Your task to perform on an android device: Open my contact list Image 0: 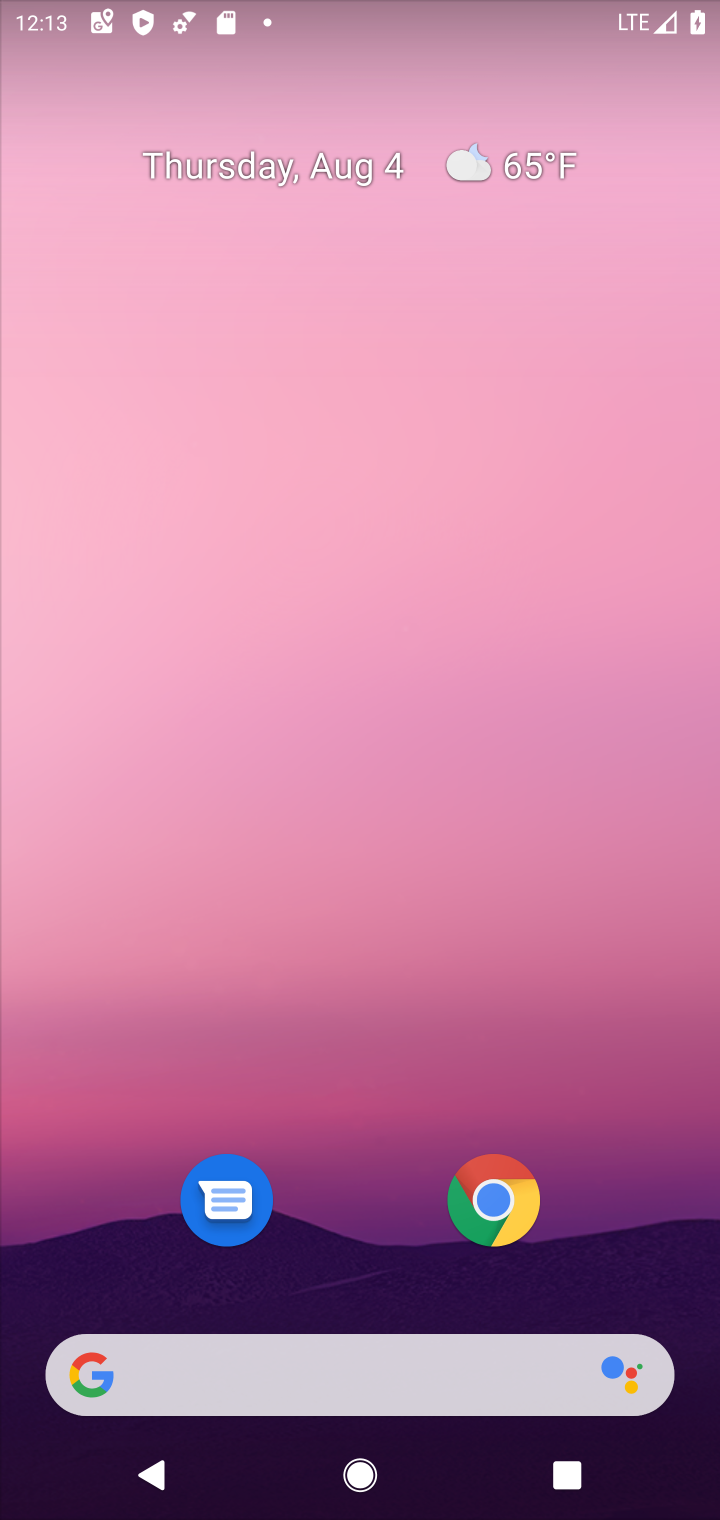
Step 0: press home button
Your task to perform on an android device: Open my contact list Image 1: 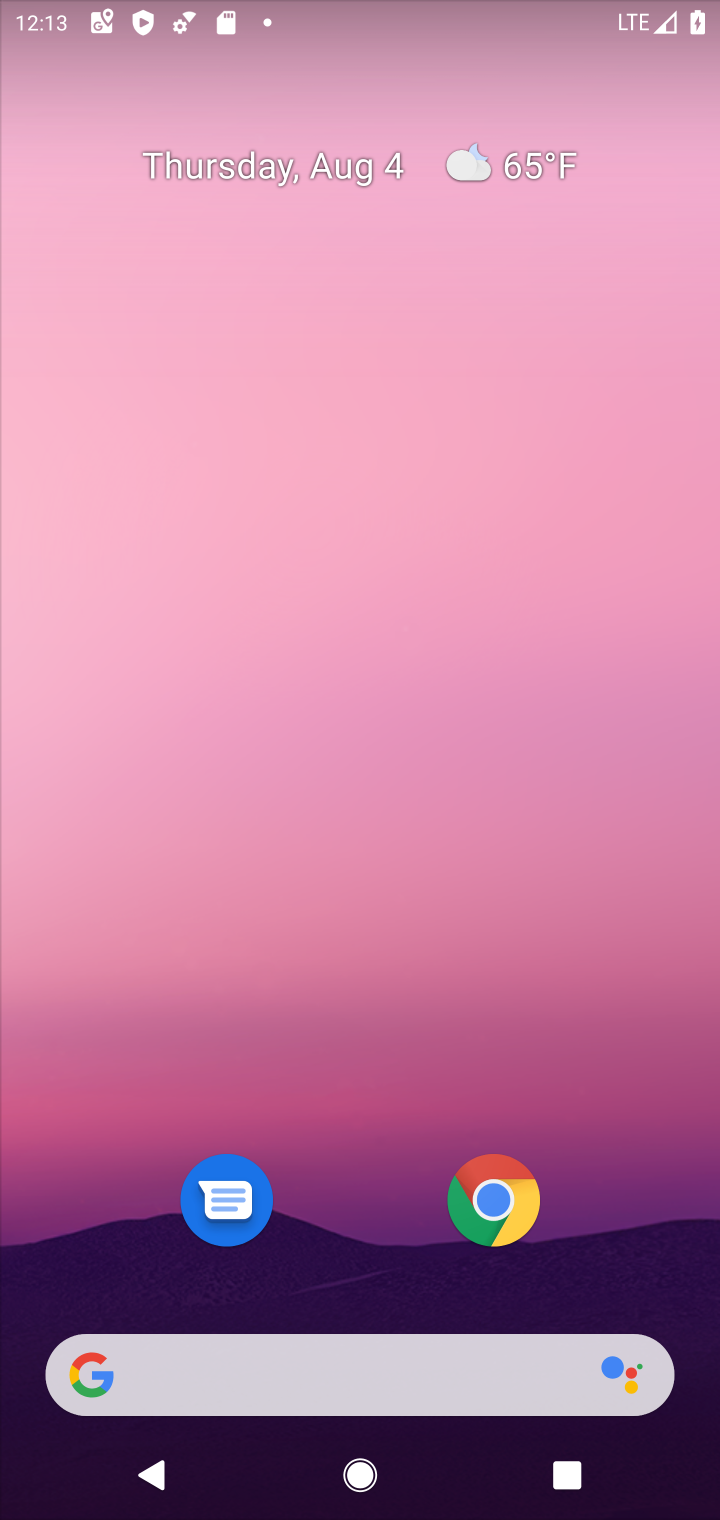
Step 1: drag from (329, 1190) to (328, 62)
Your task to perform on an android device: Open my contact list Image 2: 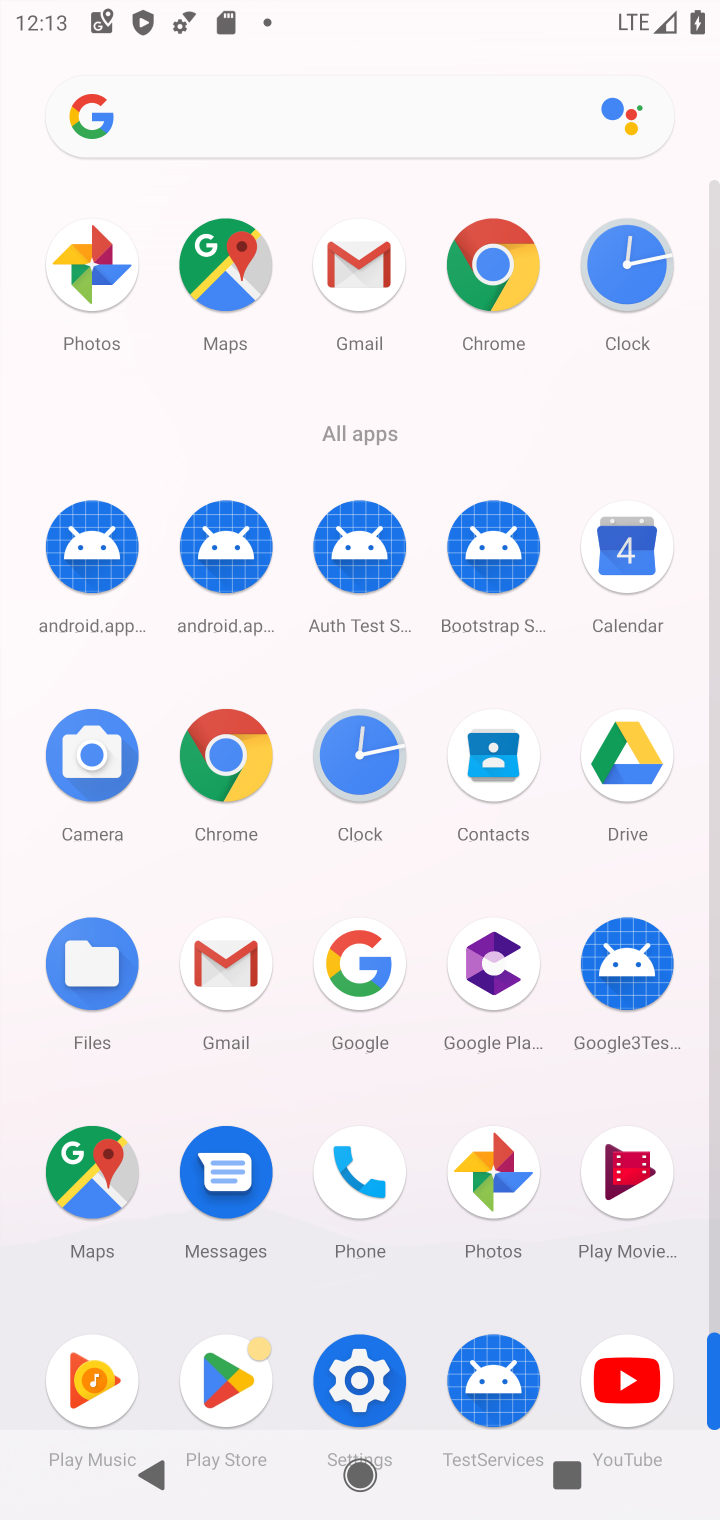
Step 2: click (491, 750)
Your task to perform on an android device: Open my contact list Image 3: 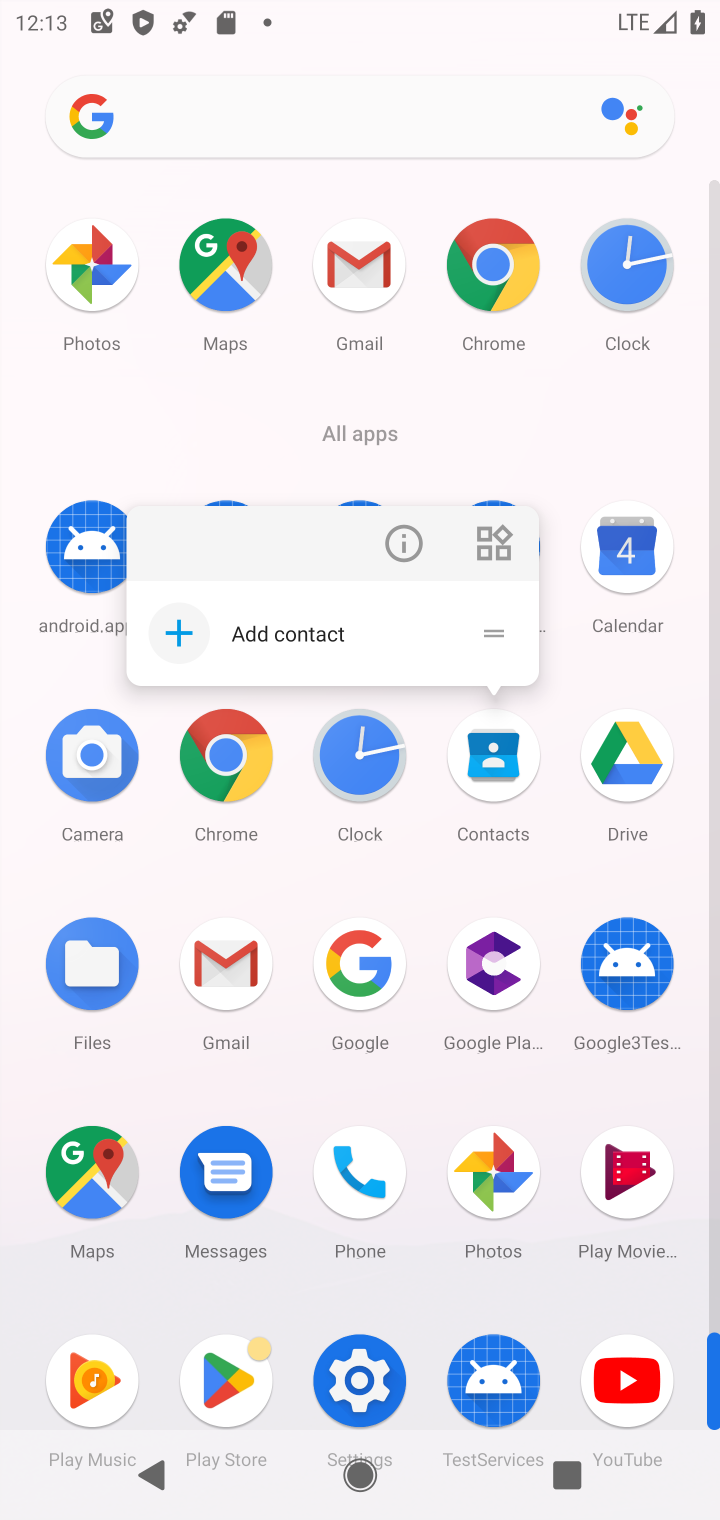
Step 3: click (506, 737)
Your task to perform on an android device: Open my contact list Image 4: 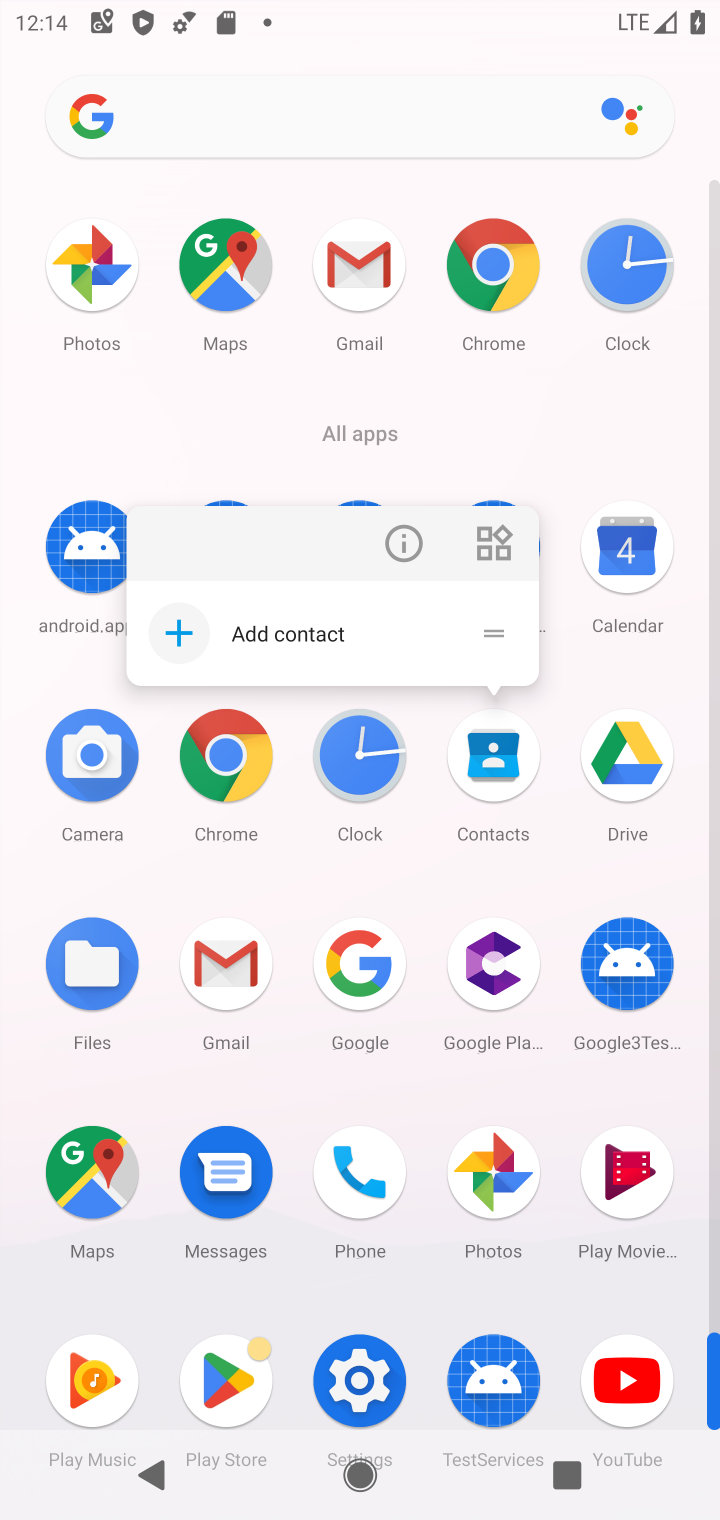
Step 4: click (506, 740)
Your task to perform on an android device: Open my contact list Image 5: 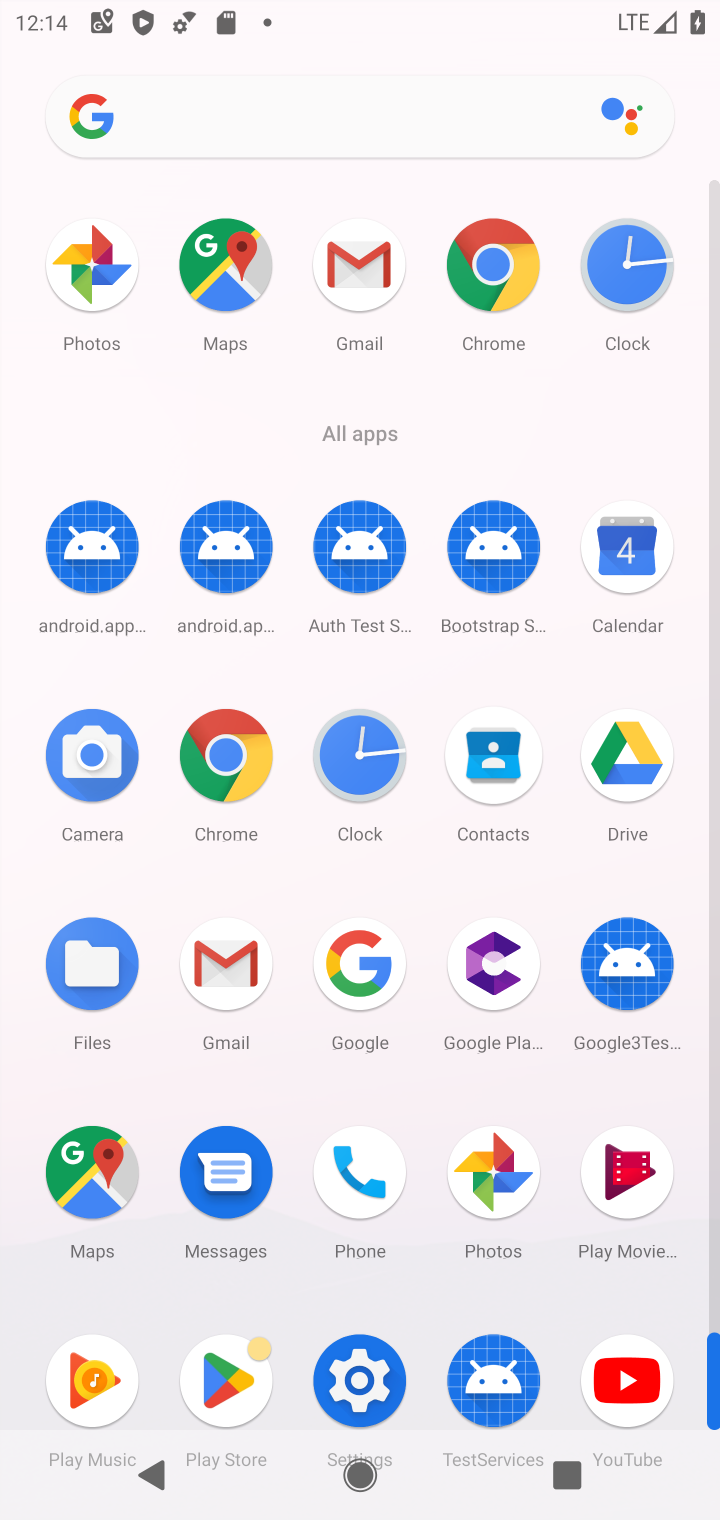
Step 5: click (503, 755)
Your task to perform on an android device: Open my contact list Image 6: 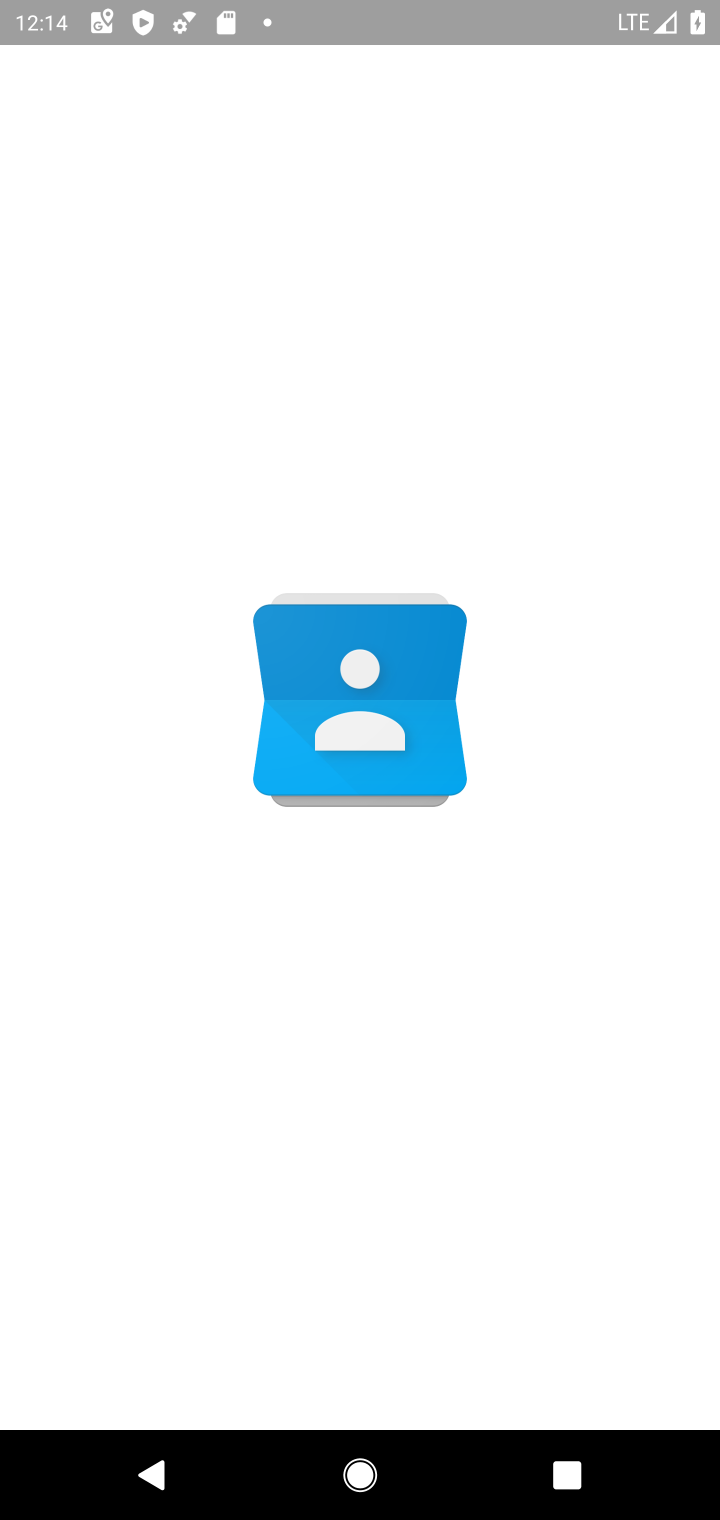
Step 6: click (503, 755)
Your task to perform on an android device: Open my contact list Image 7: 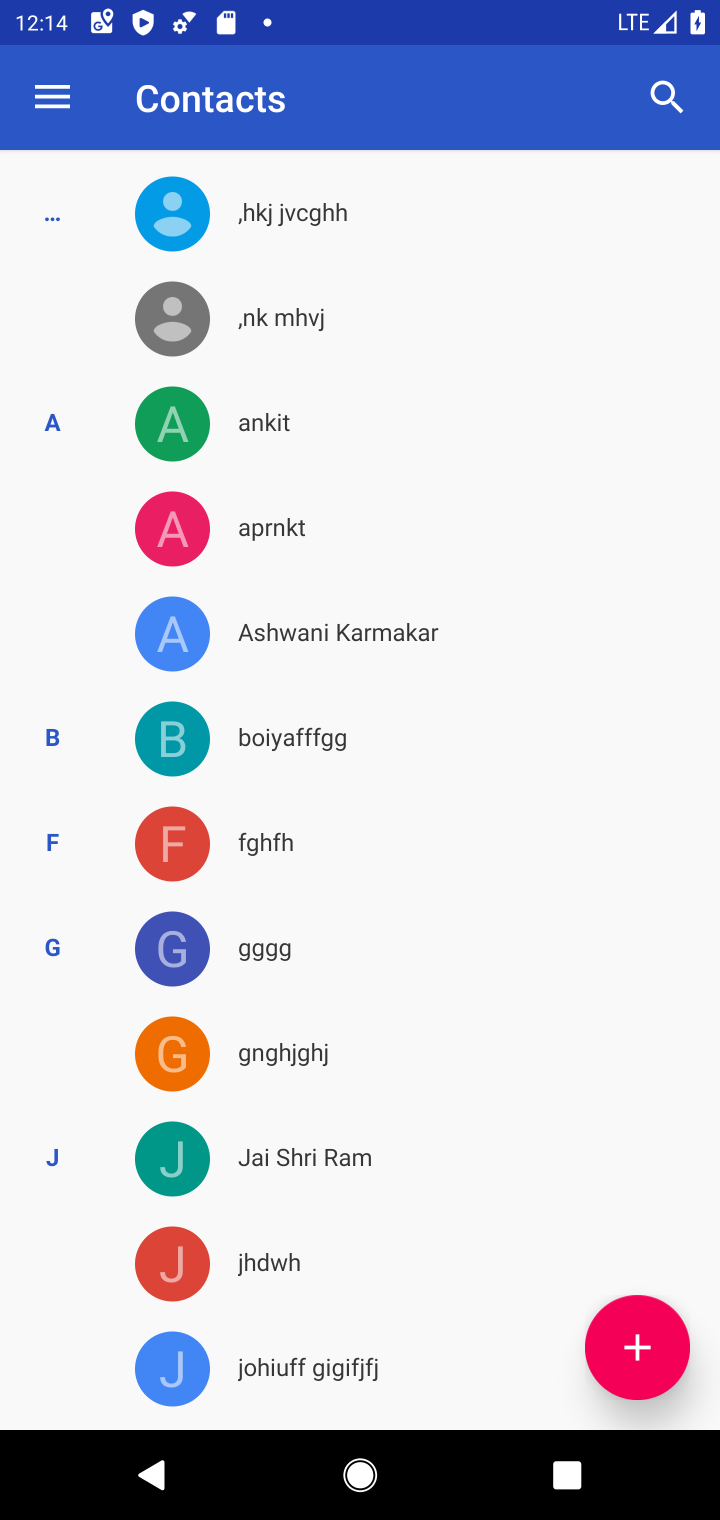
Step 7: task complete